Your task to perform on an android device: set the stopwatch Image 0: 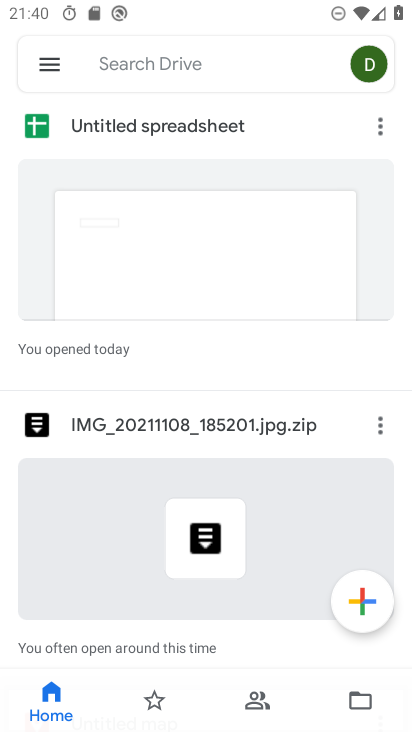
Step 0: press home button
Your task to perform on an android device: set the stopwatch Image 1: 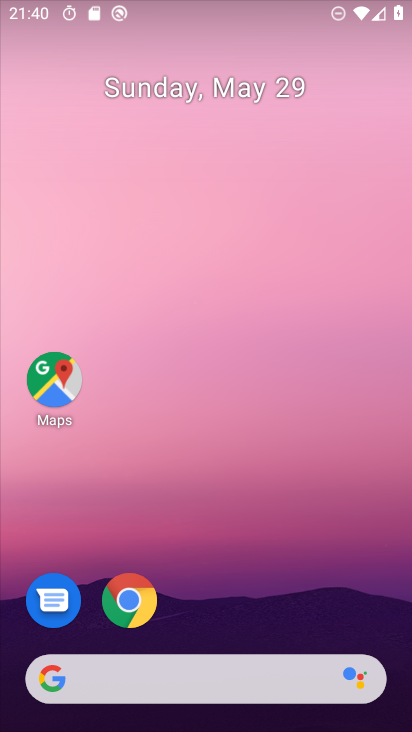
Step 1: drag from (326, 628) to (313, 224)
Your task to perform on an android device: set the stopwatch Image 2: 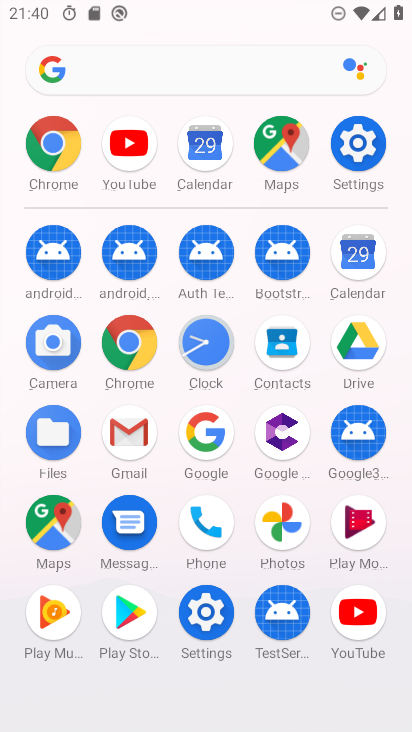
Step 2: click (212, 345)
Your task to perform on an android device: set the stopwatch Image 3: 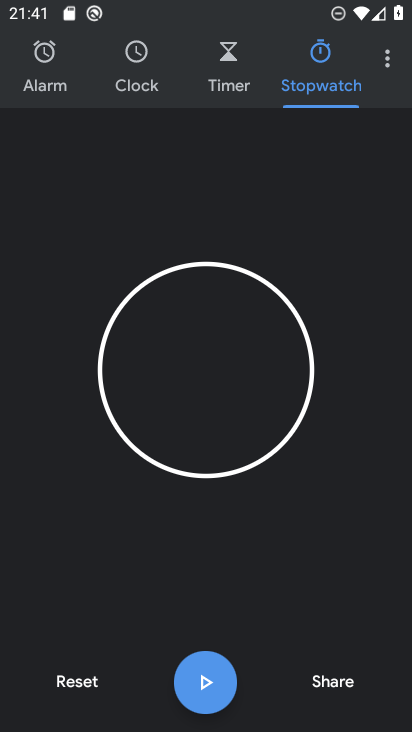
Step 3: click (64, 691)
Your task to perform on an android device: set the stopwatch Image 4: 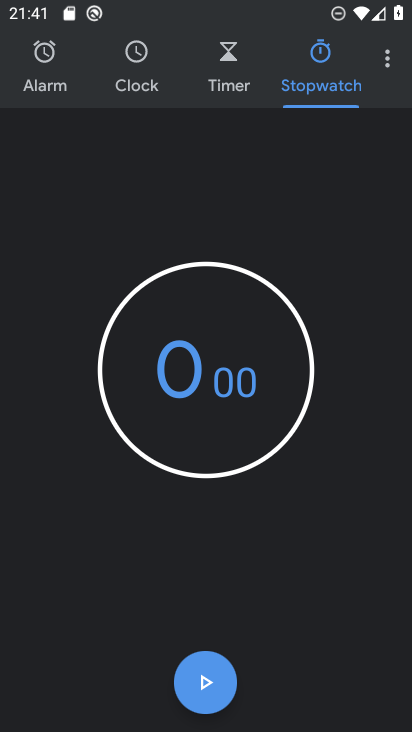
Step 4: click (226, 669)
Your task to perform on an android device: set the stopwatch Image 5: 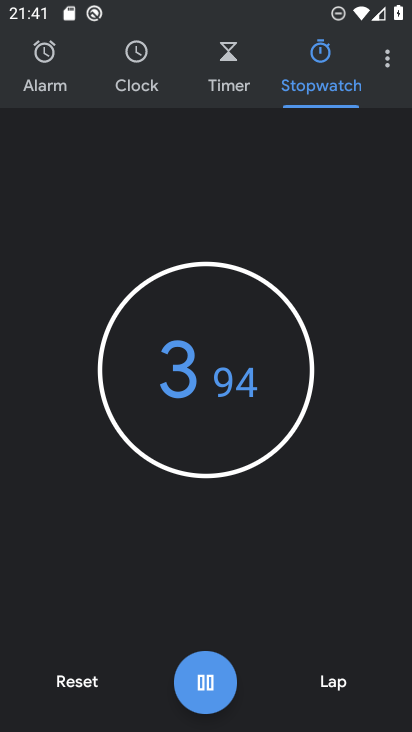
Step 5: click (204, 680)
Your task to perform on an android device: set the stopwatch Image 6: 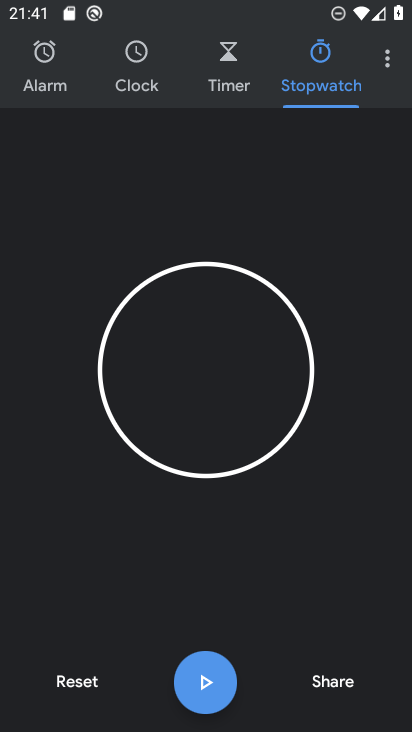
Step 6: task complete